Your task to perform on an android device: Go to calendar. Show me events next week Image 0: 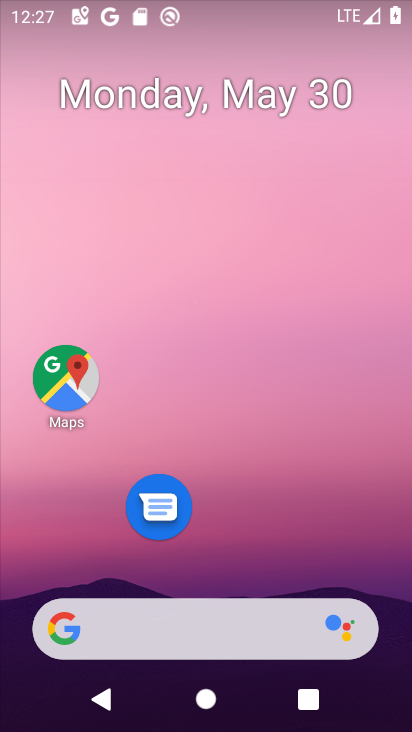
Step 0: drag from (261, 527) to (252, 223)
Your task to perform on an android device: Go to calendar. Show me events next week Image 1: 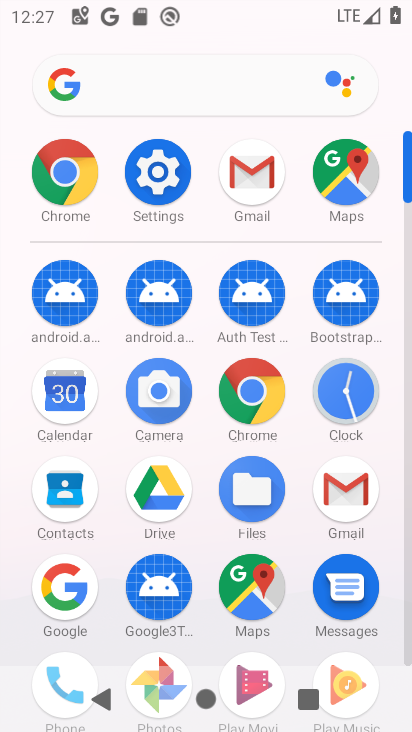
Step 1: click (54, 398)
Your task to perform on an android device: Go to calendar. Show me events next week Image 2: 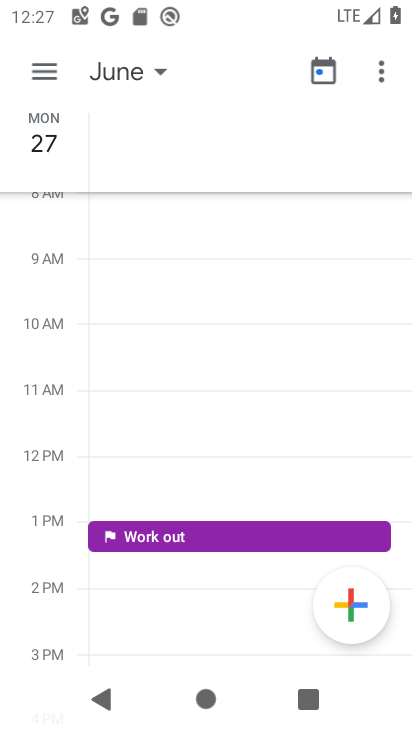
Step 2: click (56, 72)
Your task to perform on an android device: Go to calendar. Show me events next week Image 3: 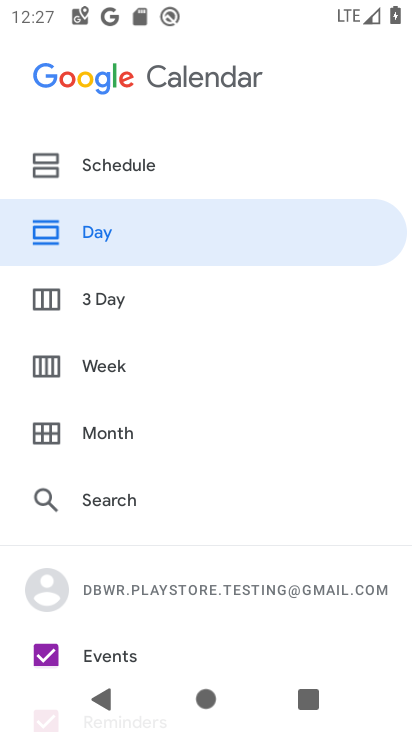
Step 3: press back button
Your task to perform on an android device: Go to calendar. Show me events next week Image 4: 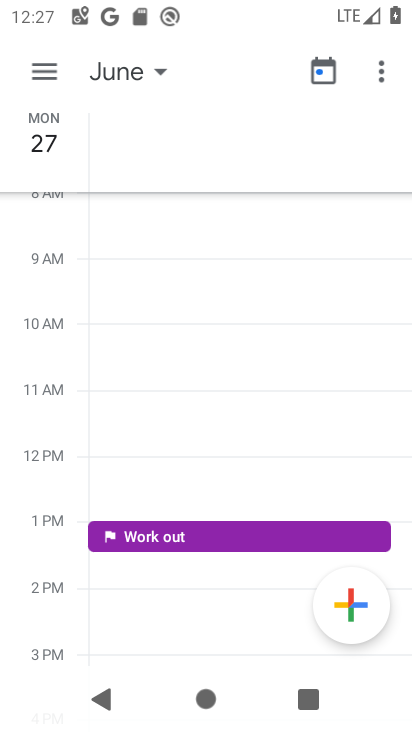
Step 4: click (144, 79)
Your task to perform on an android device: Go to calendar. Show me events next week Image 5: 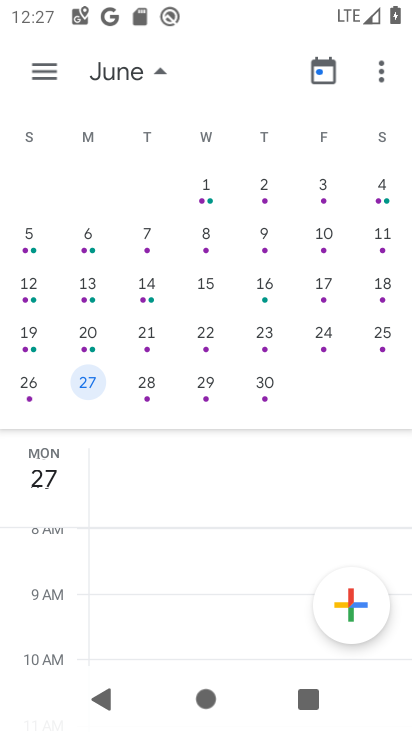
Step 5: click (202, 191)
Your task to perform on an android device: Go to calendar. Show me events next week Image 6: 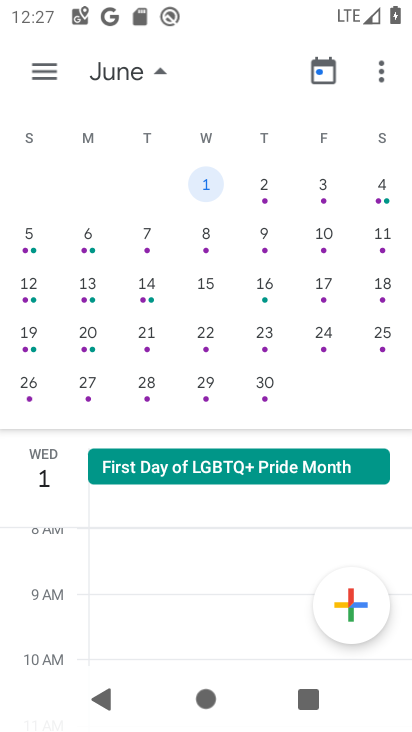
Step 6: click (47, 64)
Your task to perform on an android device: Go to calendar. Show me events next week Image 7: 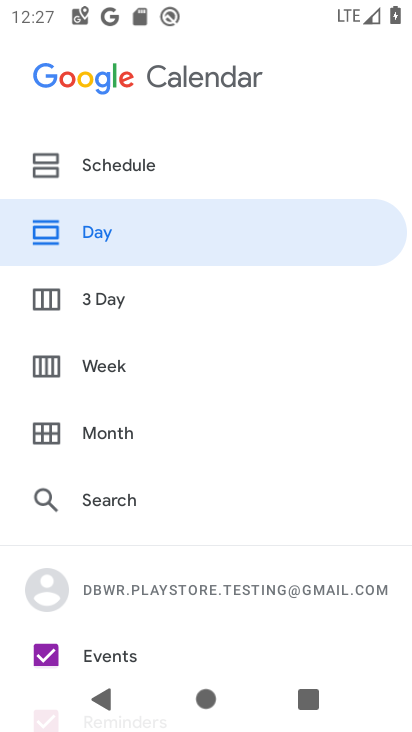
Step 7: click (99, 161)
Your task to perform on an android device: Go to calendar. Show me events next week Image 8: 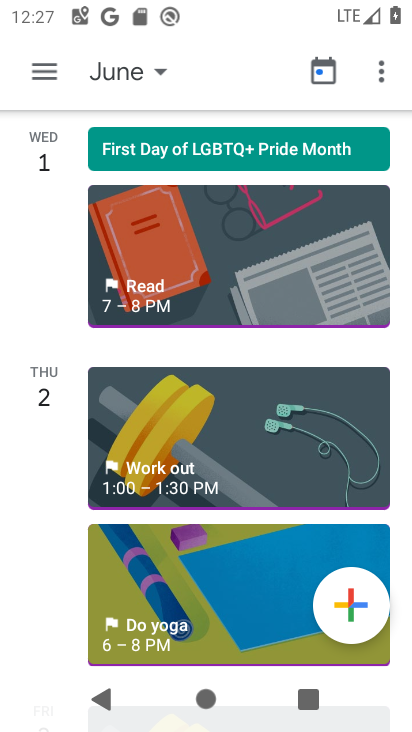
Step 8: task complete